Your task to perform on an android device: Search for the best rated coffee table on Target. Image 0: 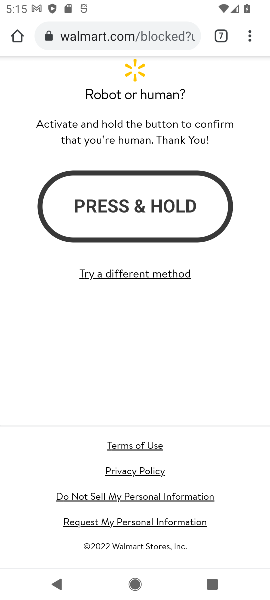
Step 0: press home button
Your task to perform on an android device: Search for the best rated coffee table on Target. Image 1: 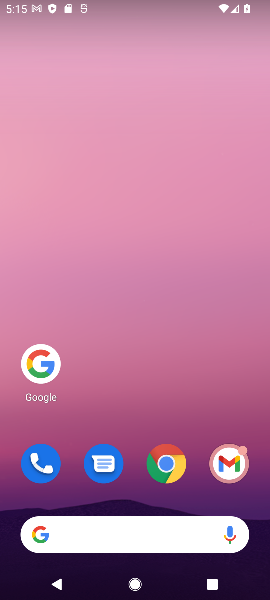
Step 1: click (39, 364)
Your task to perform on an android device: Search for the best rated coffee table on Target. Image 2: 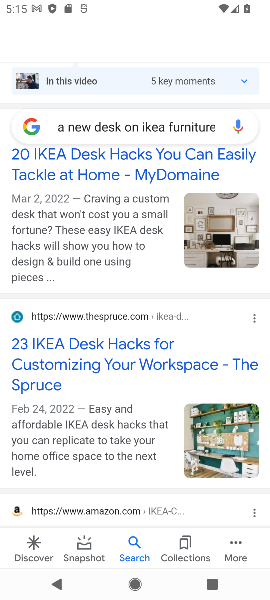
Step 2: drag from (146, 127) to (162, 525)
Your task to perform on an android device: Search for the best rated coffee table on Target. Image 3: 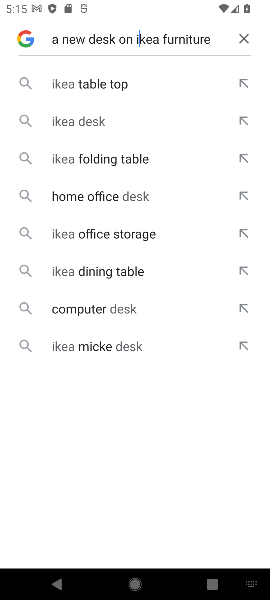
Step 3: click (152, 124)
Your task to perform on an android device: Search for the best rated coffee table on Target. Image 4: 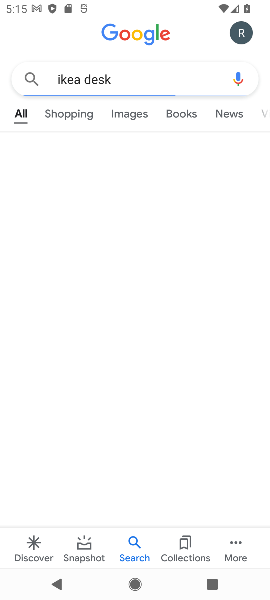
Step 4: click (113, 80)
Your task to perform on an android device: Search for the best rated coffee table on Target. Image 5: 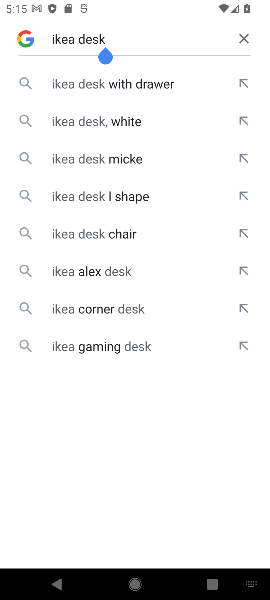
Step 5: click (263, 53)
Your task to perform on an android device: Search for the best rated coffee table on Target. Image 6: 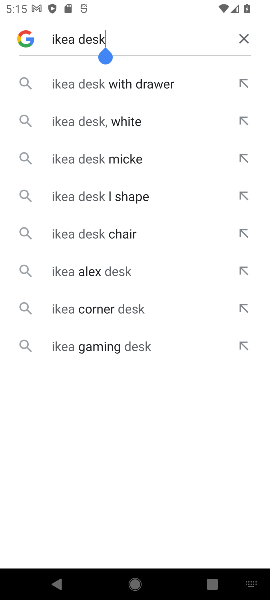
Step 6: click (244, 42)
Your task to perform on an android device: Search for the best rated coffee table on Target. Image 7: 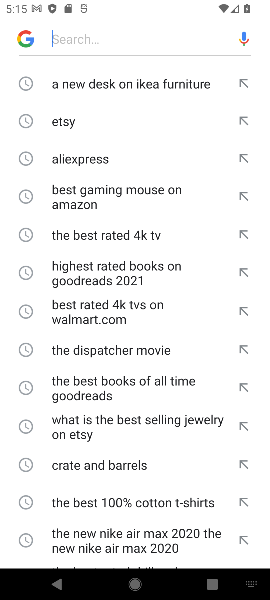
Step 7: click (104, 33)
Your task to perform on an android device: Search for the best rated coffee table on Target. Image 8: 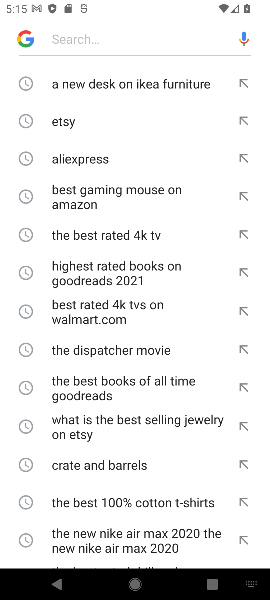
Step 8: type "best rated coffee table on Target "
Your task to perform on an android device: Search for the best rated coffee table on Target. Image 9: 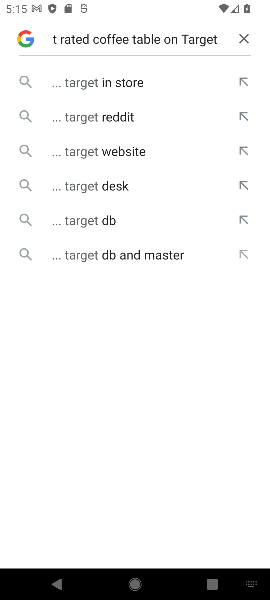
Step 9: click (127, 84)
Your task to perform on an android device: Search for the best rated coffee table on Target. Image 10: 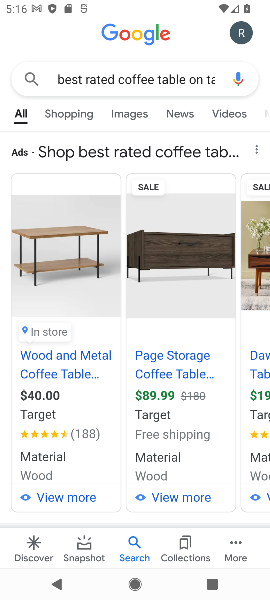
Step 10: task complete